Your task to perform on an android device: toggle sleep mode Image 0: 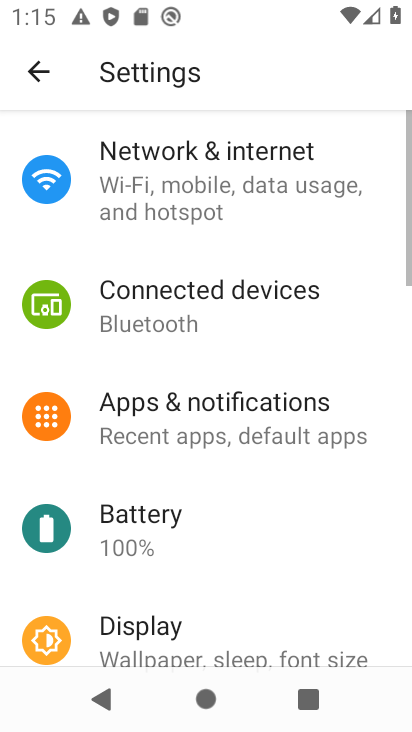
Step 0: press home button
Your task to perform on an android device: toggle sleep mode Image 1: 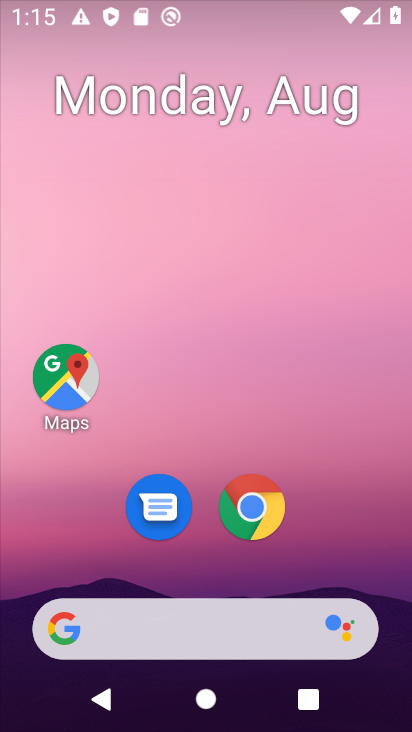
Step 1: drag from (215, 579) to (242, 89)
Your task to perform on an android device: toggle sleep mode Image 2: 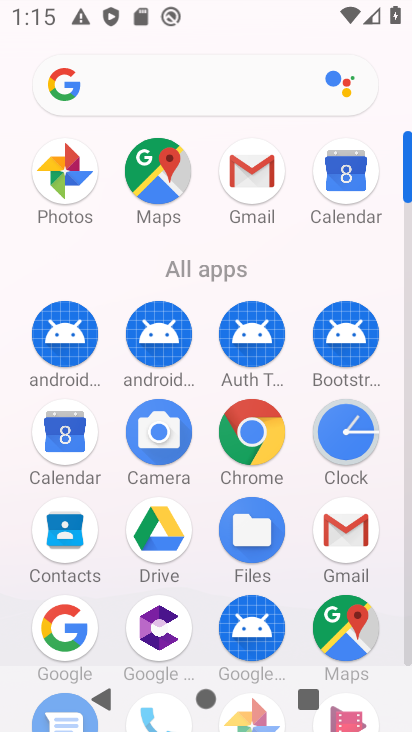
Step 2: drag from (198, 576) to (202, 156)
Your task to perform on an android device: toggle sleep mode Image 3: 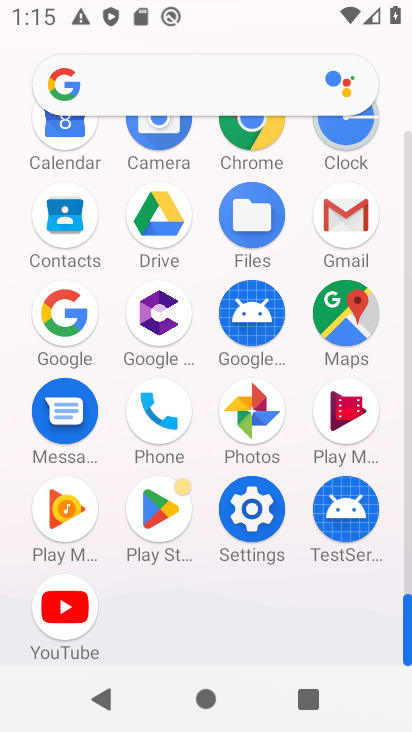
Step 3: click (257, 505)
Your task to perform on an android device: toggle sleep mode Image 4: 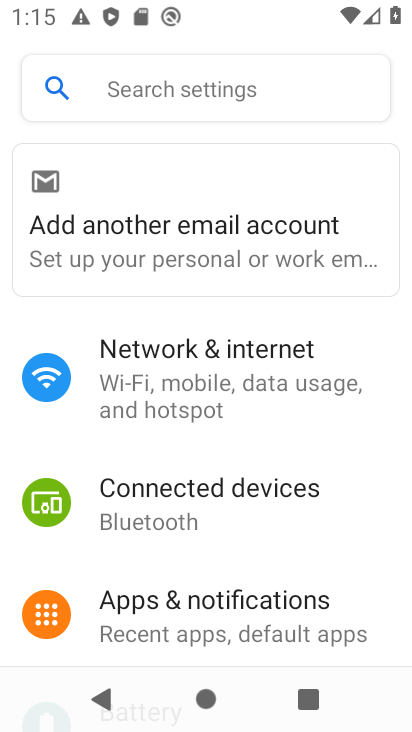
Step 4: drag from (201, 585) to (219, 90)
Your task to perform on an android device: toggle sleep mode Image 5: 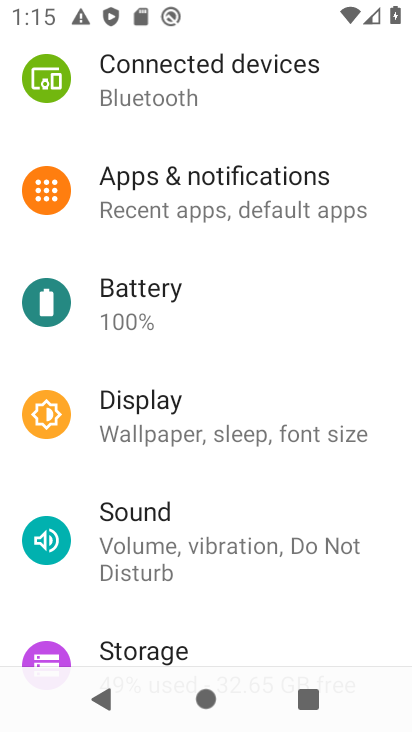
Step 5: click (172, 415)
Your task to perform on an android device: toggle sleep mode Image 6: 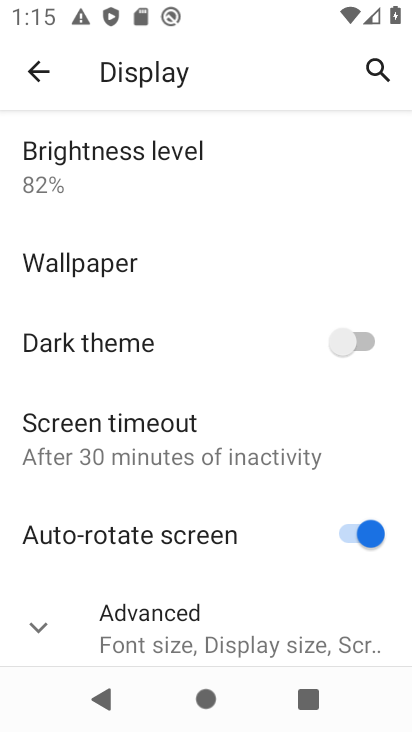
Step 6: click (74, 619)
Your task to perform on an android device: toggle sleep mode Image 7: 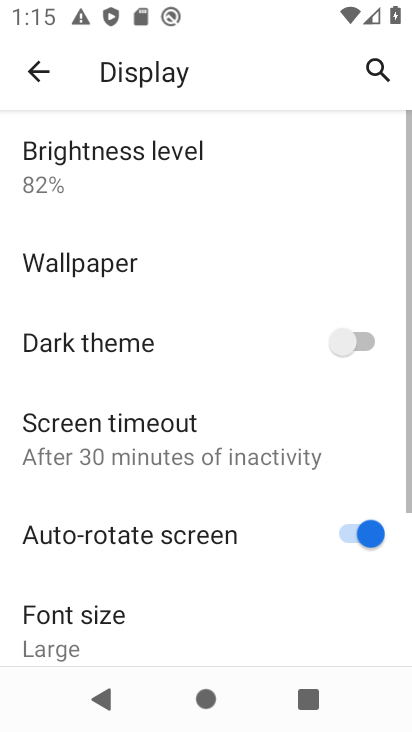
Step 7: task complete